Your task to perform on an android device: Open Reddit.com Image 0: 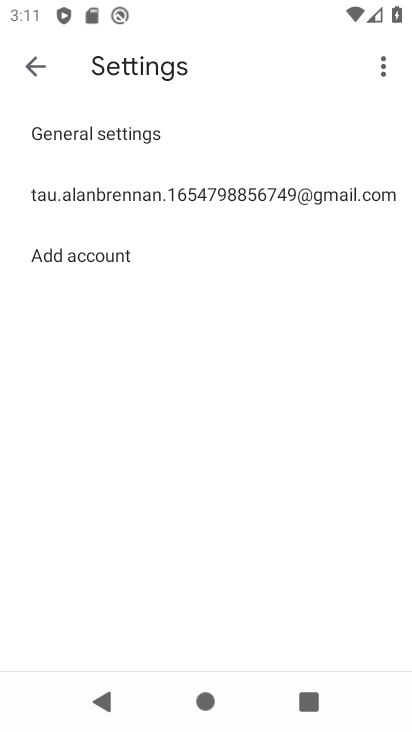
Step 0: press home button
Your task to perform on an android device: Open Reddit.com Image 1: 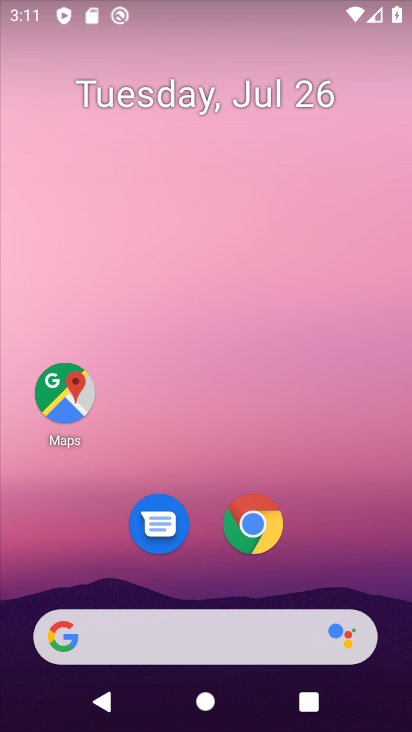
Step 1: click (230, 649)
Your task to perform on an android device: Open Reddit.com Image 2: 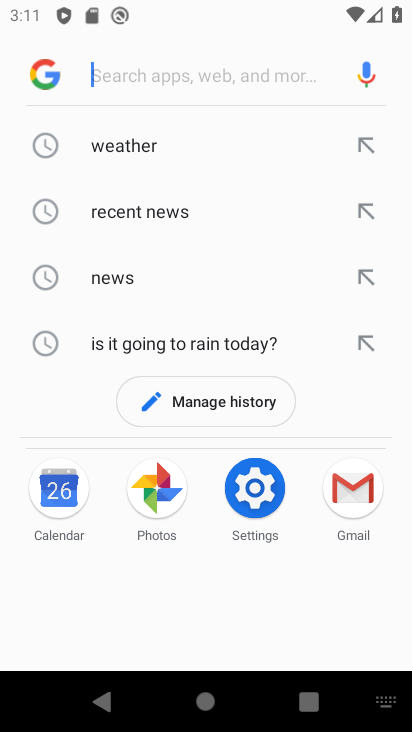
Step 2: type "reddit.com"
Your task to perform on an android device: Open Reddit.com Image 3: 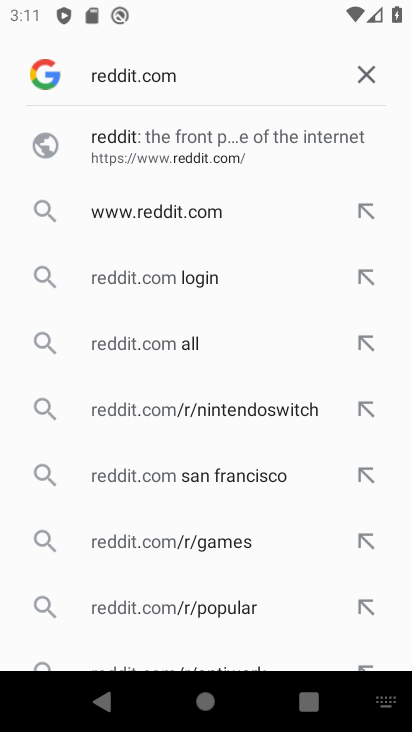
Step 3: click (145, 216)
Your task to perform on an android device: Open Reddit.com Image 4: 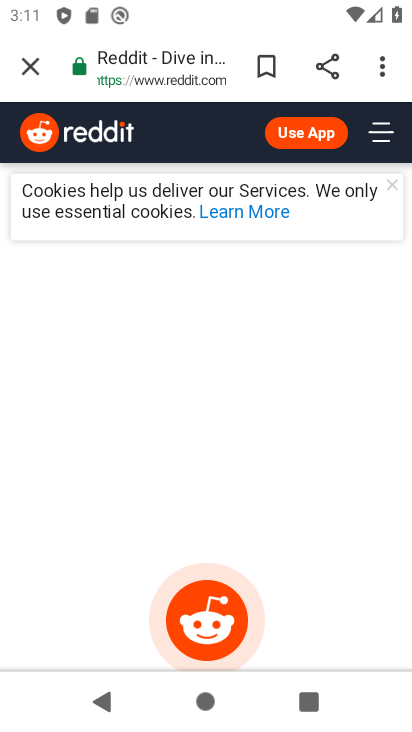
Step 4: click (207, 628)
Your task to perform on an android device: Open Reddit.com Image 5: 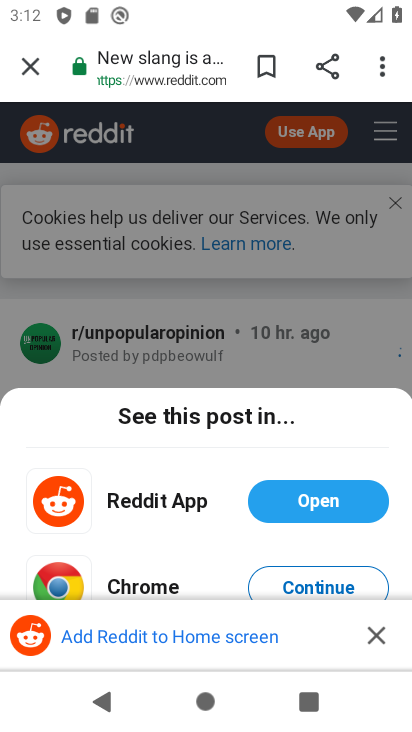
Step 5: click (355, 579)
Your task to perform on an android device: Open Reddit.com Image 6: 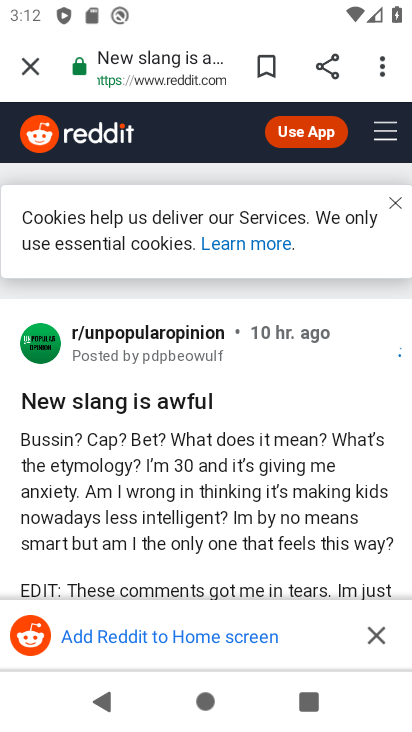
Step 6: click (376, 628)
Your task to perform on an android device: Open Reddit.com Image 7: 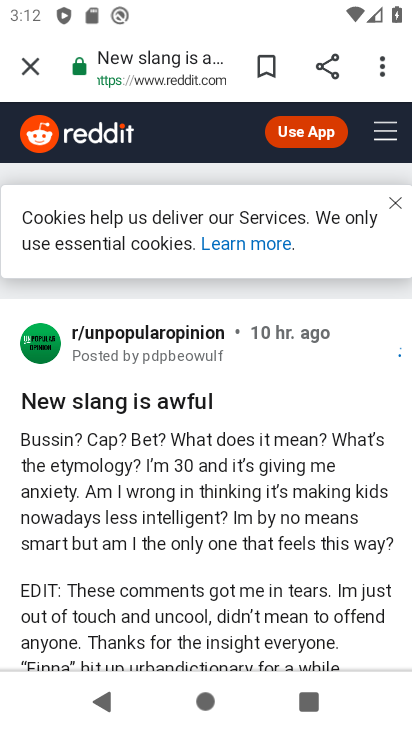
Step 7: task complete